Your task to perform on an android device: Open the Play Movies app and select the watchlist tab. Image 0: 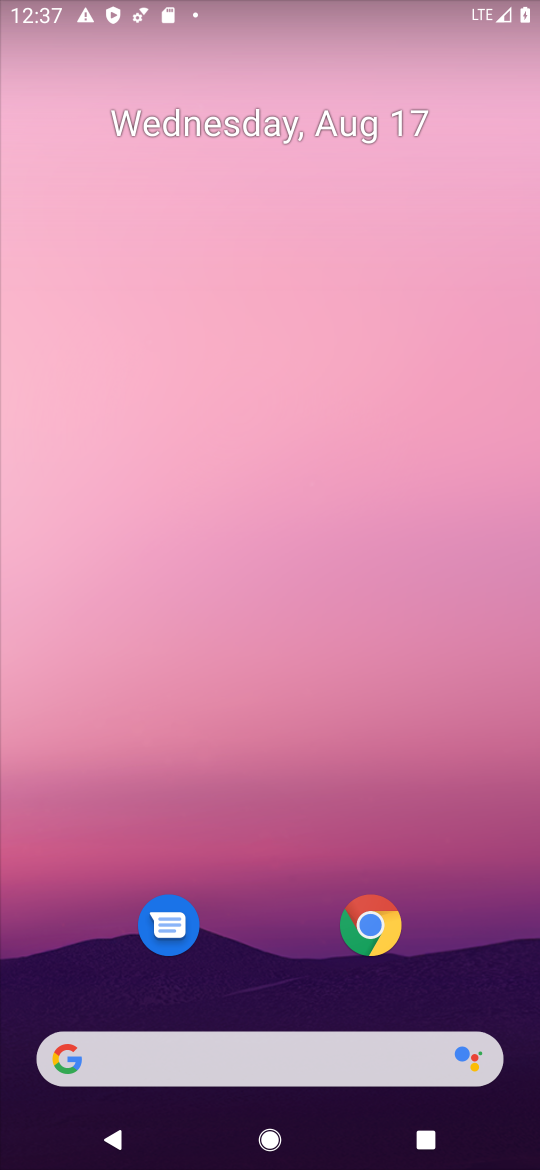
Step 0: drag from (304, 1005) to (269, 62)
Your task to perform on an android device: Open the Play Movies app and select the watchlist tab. Image 1: 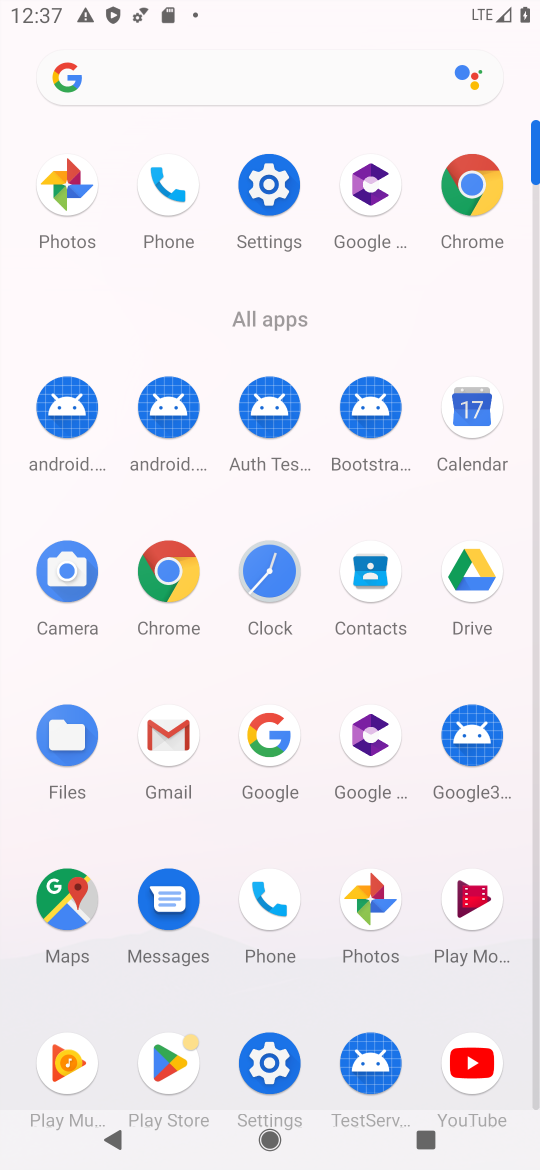
Step 1: click (483, 931)
Your task to perform on an android device: Open the Play Movies app and select the watchlist tab. Image 2: 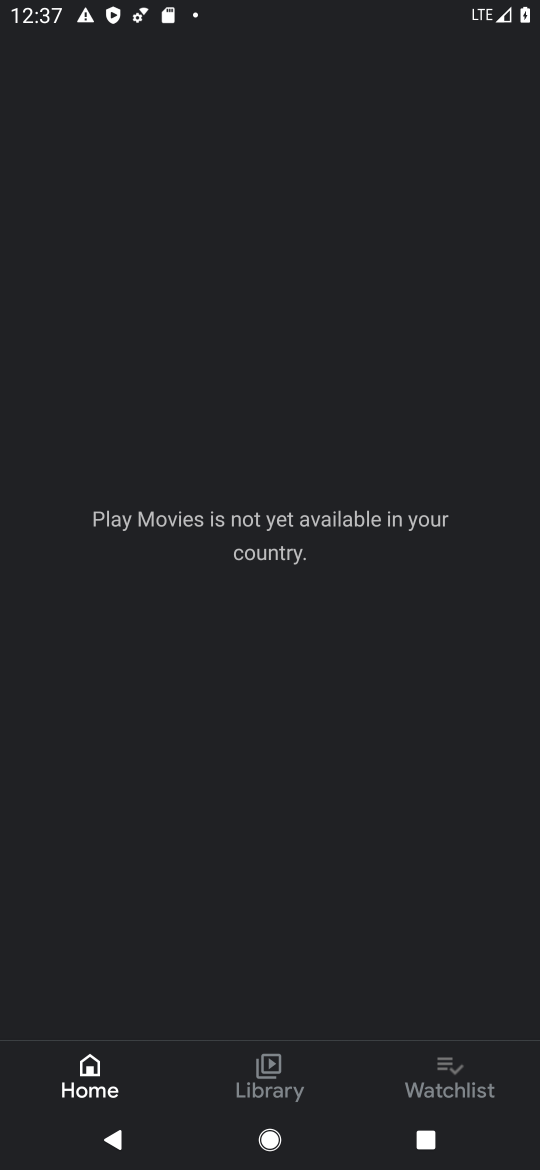
Step 2: click (418, 1075)
Your task to perform on an android device: Open the Play Movies app and select the watchlist tab. Image 3: 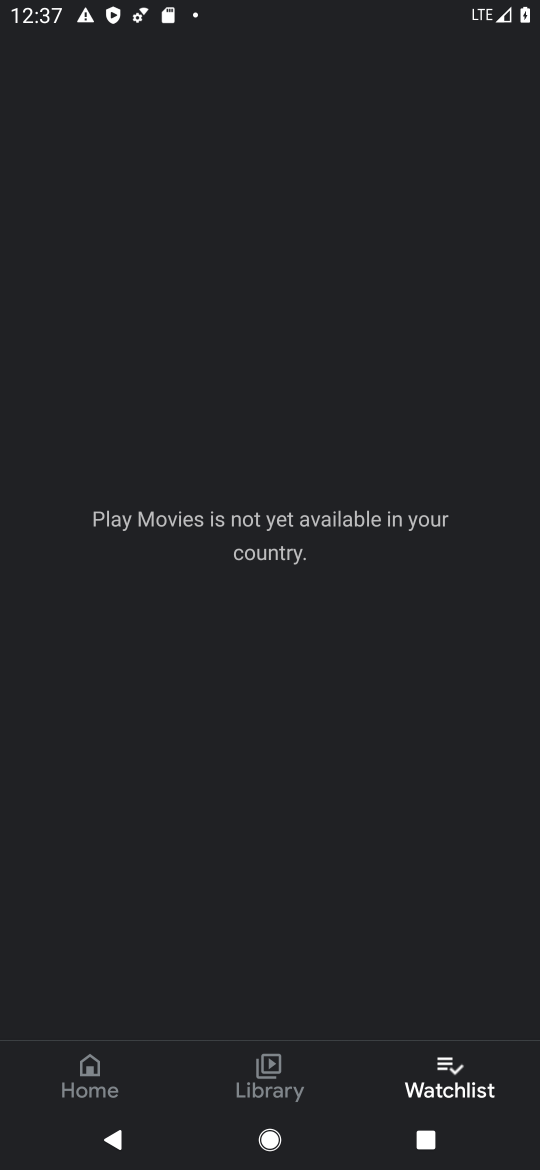
Step 3: task complete